Your task to perform on an android device: delete a single message in the gmail app Image 0: 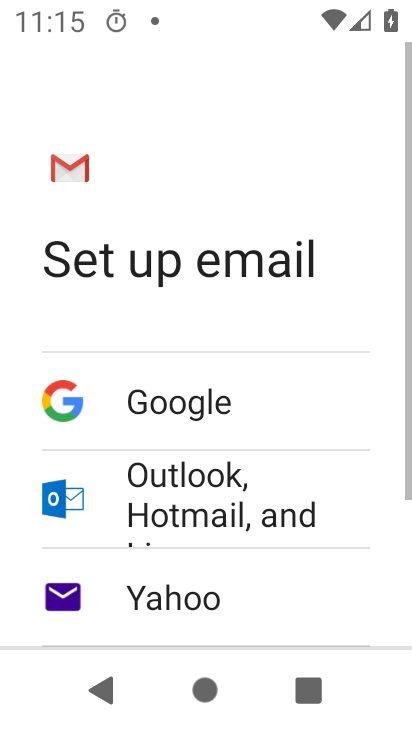
Step 0: press home button
Your task to perform on an android device: delete a single message in the gmail app Image 1: 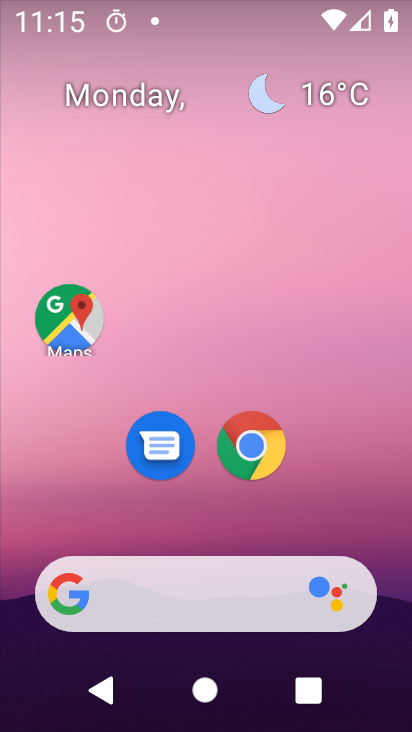
Step 1: drag from (231, 518) to (179, 9)
Your task to perform on an android device: delete a single message in the gmail app Image 2: 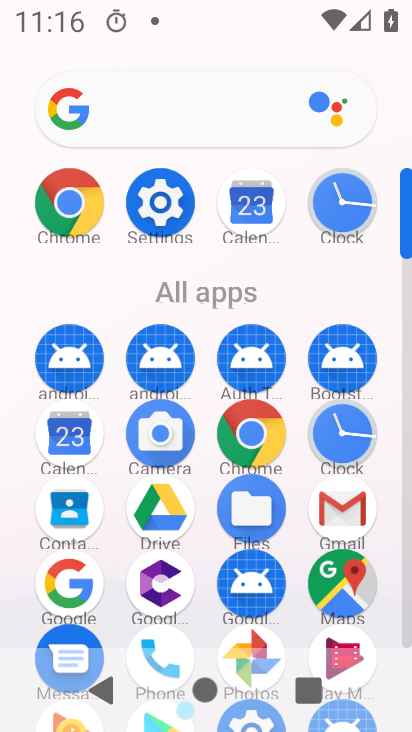
Step 2: click (333, 508)
Your task to perform on an android device: delete a single message in the gmail app Image 3: 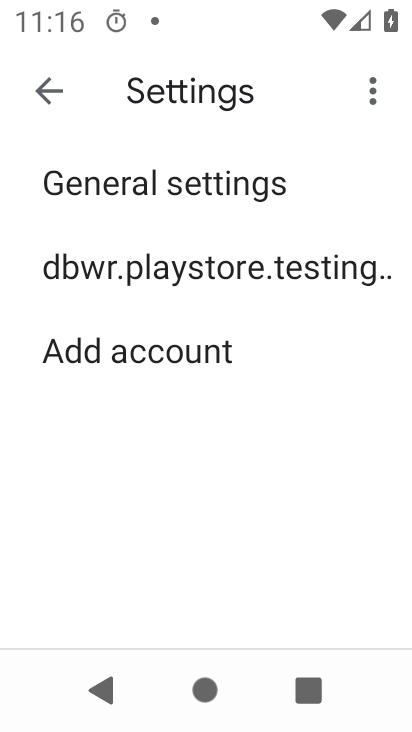
Step 3: click (49, 87)
Your task to perform on an android device: delete a single message in the gmail app Image 4: 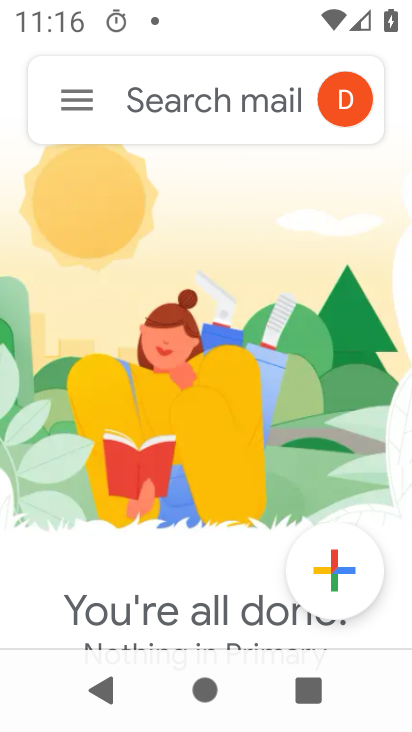
Step 4: click (82, 117)
Your task to perform on an android device: delete a single message in the gmail app Image 5: 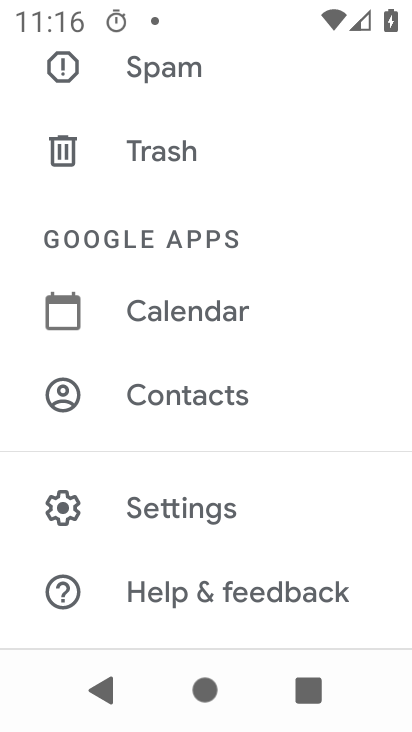
Step 5: drag from (220, 277) to (214, 451)
Your task to perform on an android device: delete a single message in the gmail app Image 6: 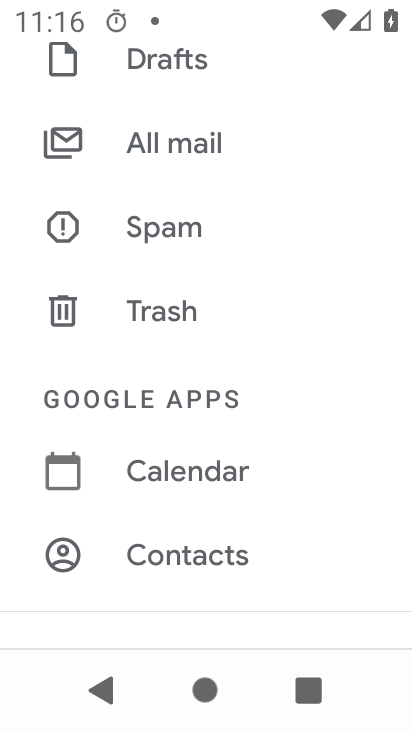
Step 6: click (157, 161)
Your task to perform on an android device: delete a single message in the gmail app Image 7: 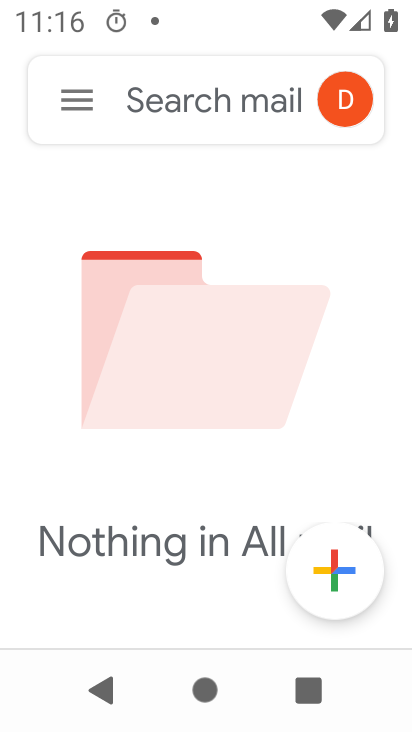
Step 7: task complete